Your task to perform on an android device: turn off smart reply in the gmail app Image 0: 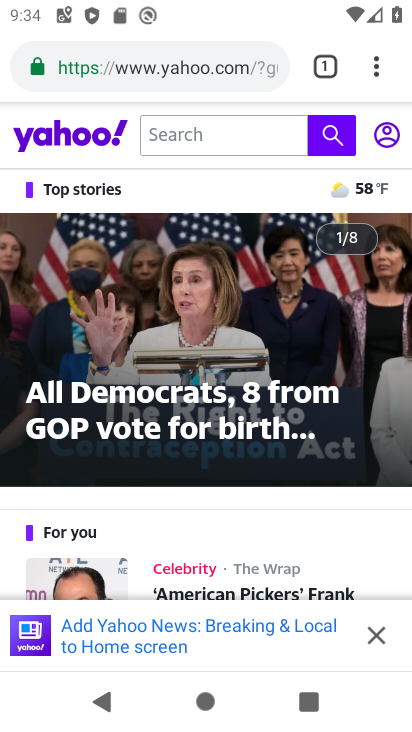
Step 0: press home button
Your task to perform on an android device: turn off smart reply in the gmail app Image 1: 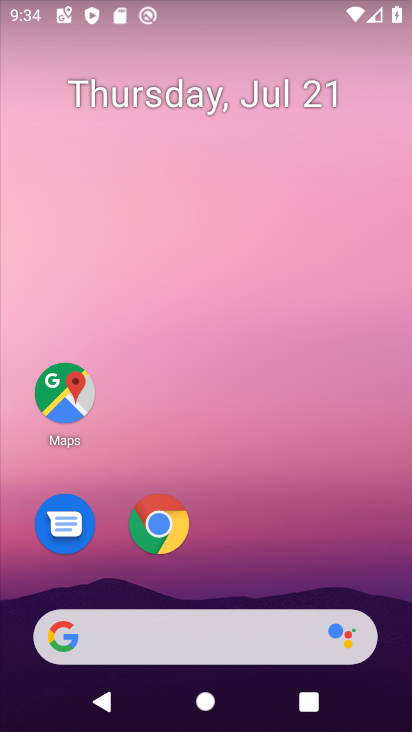
Step 1: drag from (196, 615) to (299, 209)
Your task to perform on an android device: turn off smart reply in the gmail app Image 2: 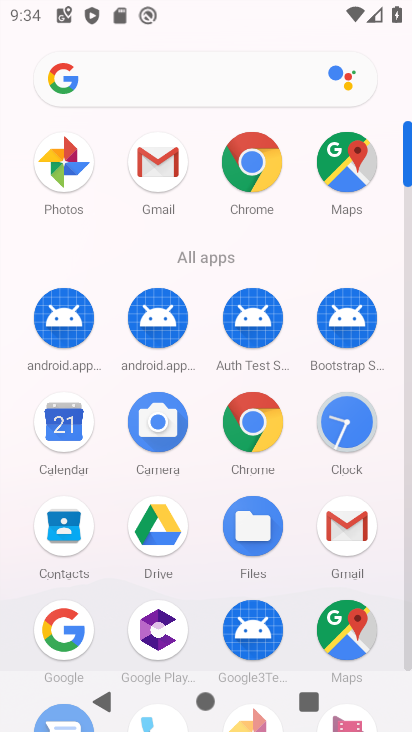
Step 2: click (166, 163)
Your task to perform on an android device: turn off smart reply in the gmail app Image 3: 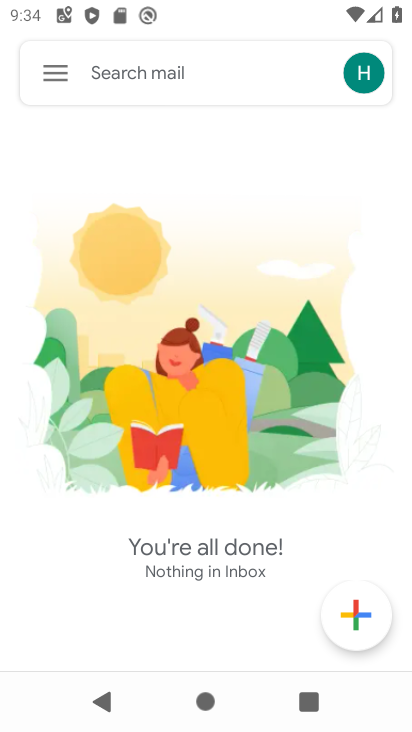
Step 3: click (52, 74)
Your task to perform on an android device: turn off smart reply in the gmail app Image 4: 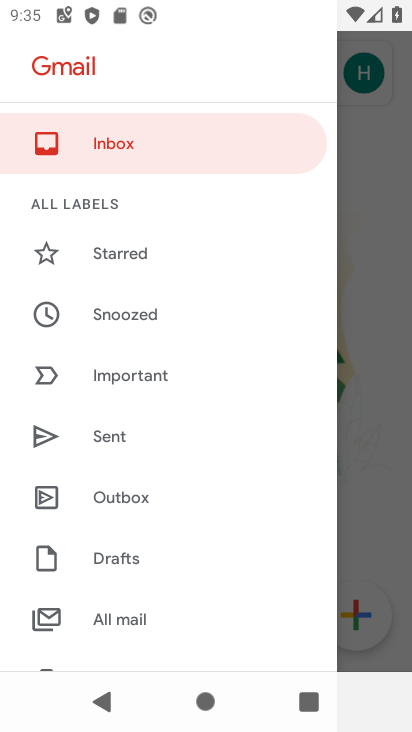
Step 4: drag from (223, 569) to (274, 180)
Your task to perform on an android device: turn off smart reply in the gmail app Image 5: 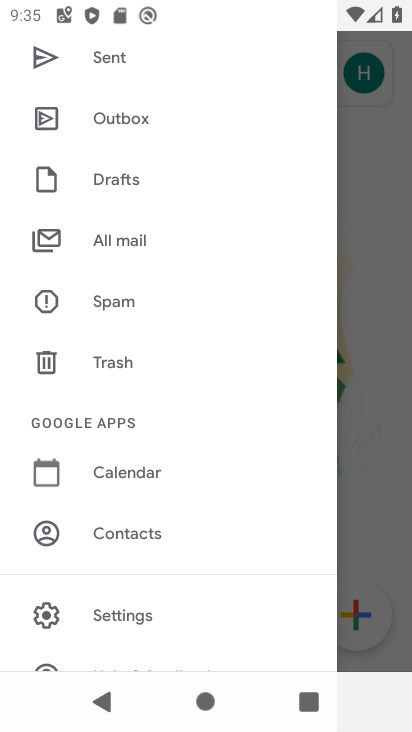
Step 5: click (114, 621)
Your task to perform on an android device: turn off smart reply in the gmail app Image 6: 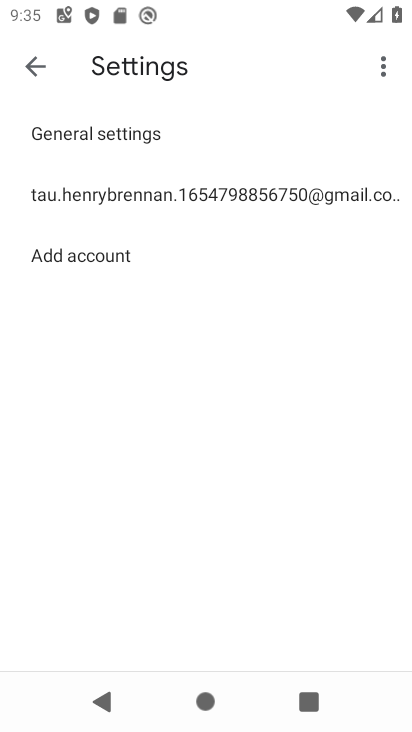
Step 6: click (268, 189)
Your task to perform on an android device: turn off smart reply in the gmail app Image 7: 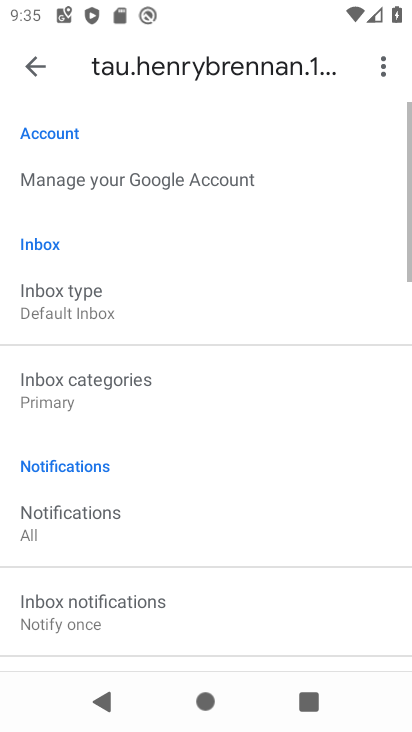
Step 7: drag from (218, 621) to (329, 170)
Your task to perform on an android device: turn off smart reply in the gmail app Image 8: 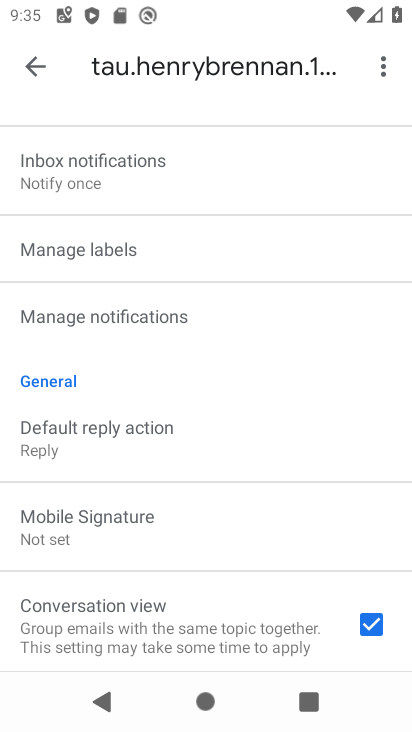
Step 8: drag from (261, 601) to (378, 100)
Your task to perform on an android device: turn off smart reply in the gmail app Image 9: 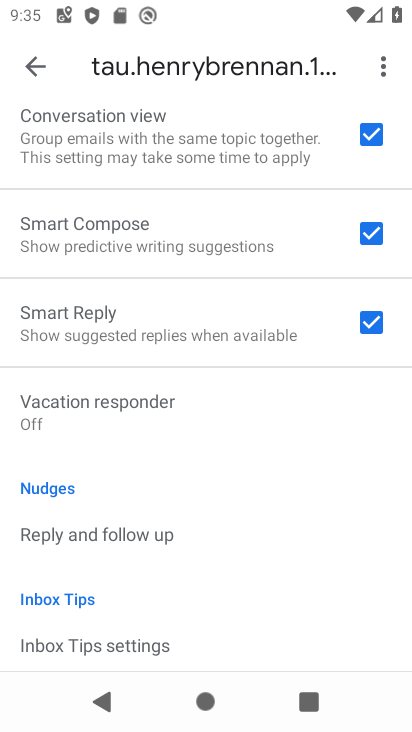
Step 9: click (374, 329)
Your task to perform on an android device: turn off smart reply in the gmail app Image 10: 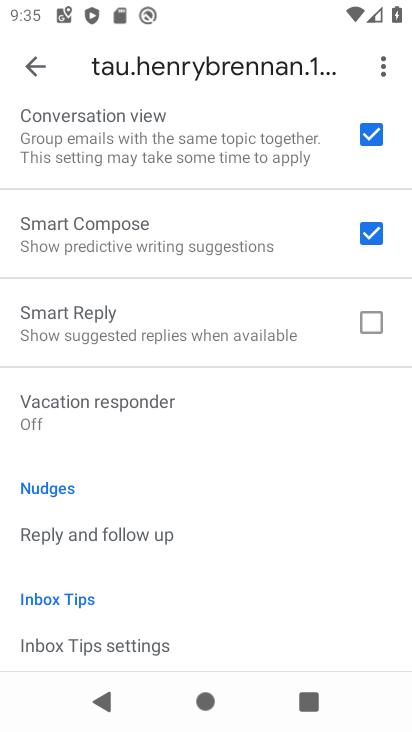
Step 10: task complete